Your task to perform on an android device: Open the contacts Image 0: 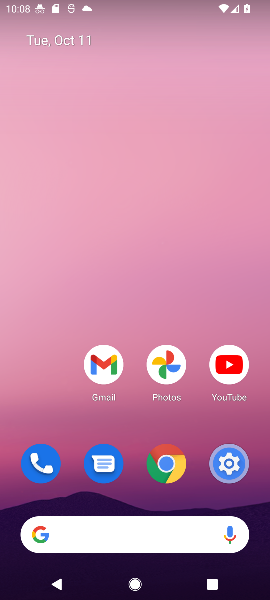
Step 0: drag from (179, 503) to (176, 241)
Your task to perform on an android device: Open the contacts Image 1: 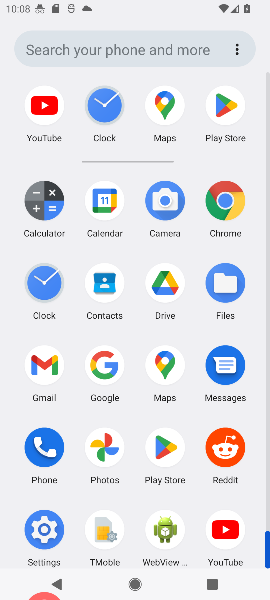
Step 1: click (103, 283)
Your task to perform on an android device: Open the contacts Image 2: 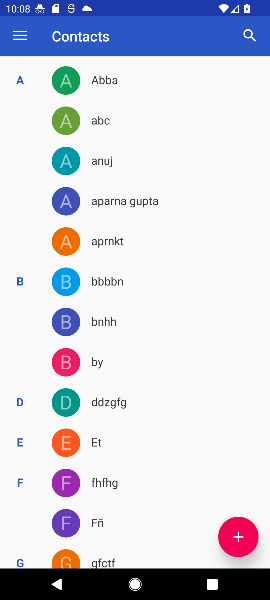
Step 2: task complete